Your task to perform on an android device: Open eBay Image 0: 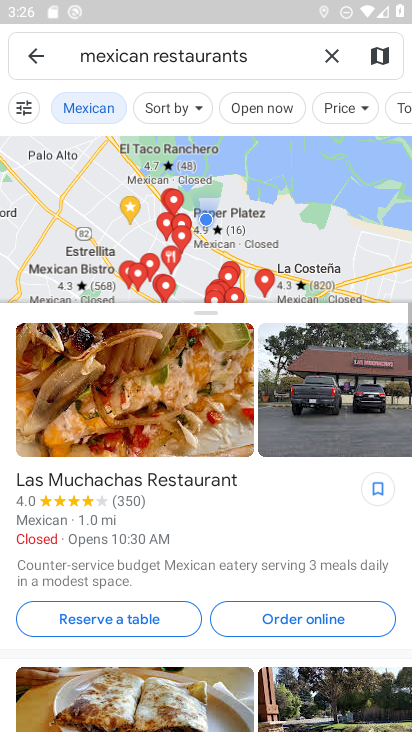
Step 0: drag from (275, 621) to (399, 377)
Your task to perform on an android device: Open eBay Image 1: 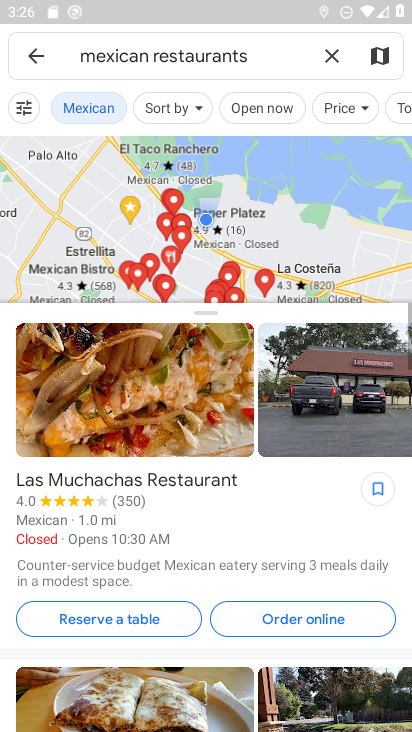
Step 1: press home button
Your task to perform on an android device: Open eBay Image 2: 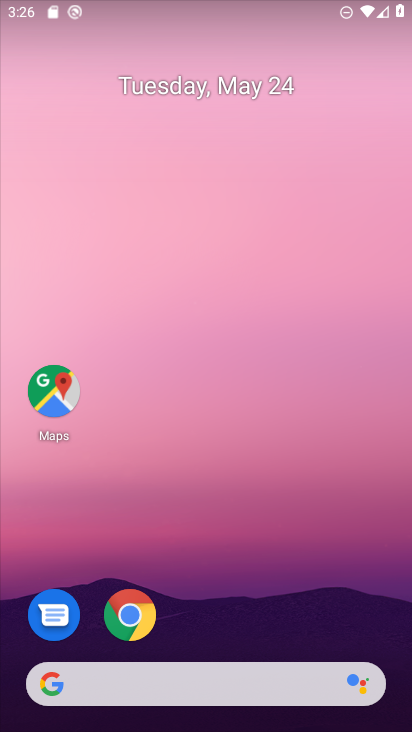
Step 2: drag from (276, 601) to (329, 323)
Your task to perform on an android device: Open eBay Image 3: 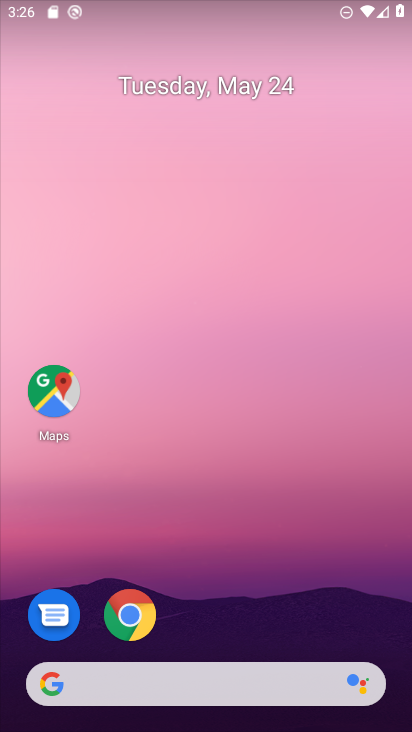
Step 3: drag from (197, 590) to (218, 113)
Your task to perform on an android device: Open eBay Image 4: 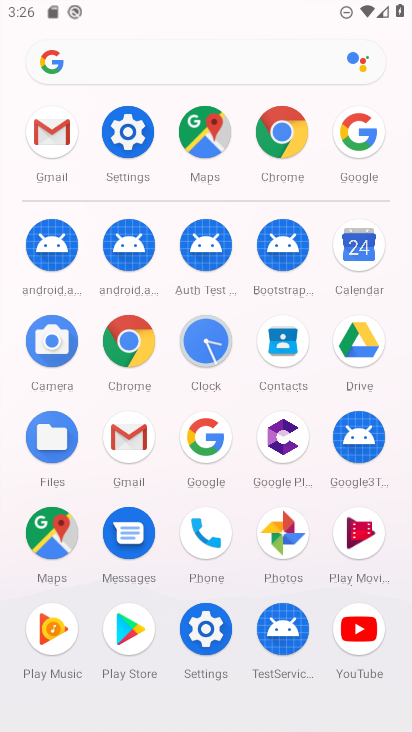
Step 4: click (292, 150)
Your task to perform on an android device: Open eBay Image 5: 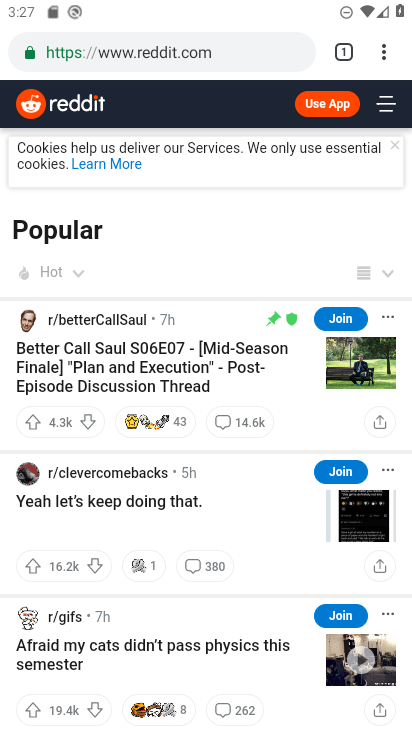
Step 5: click (191, 59)
Your task to perform on an android device: Open eBay Image 6: 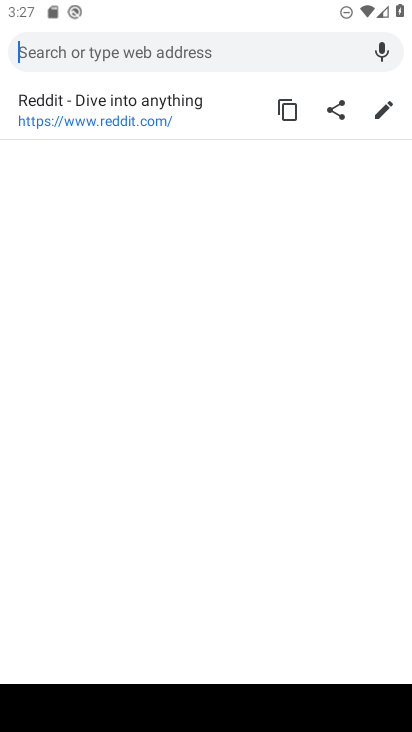
Step 6: type "ebay"
Your task to perform on an android device: Open eBay Image 7: 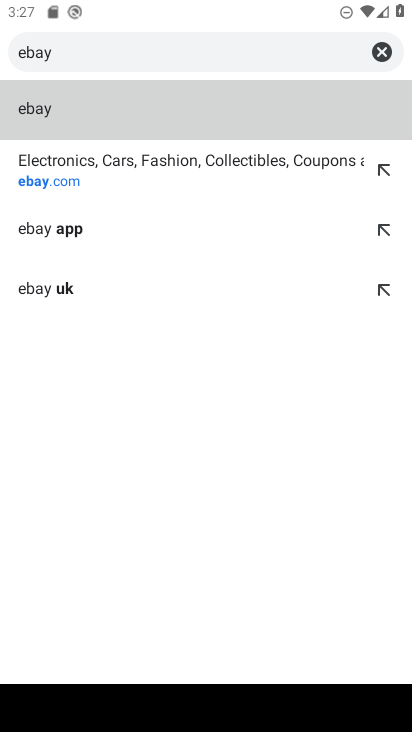
Step 7: click (222, 174)
Your task to perform on an android device: Open eBay Image 8: 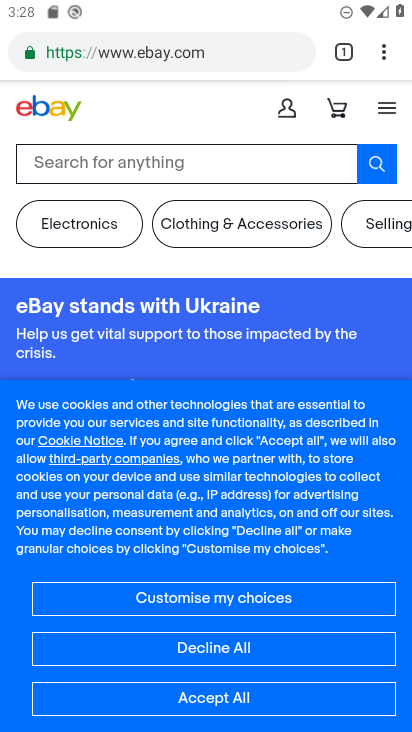
Step 8: task complete